Your task to perform on an android device: Open the web browser Image 0: 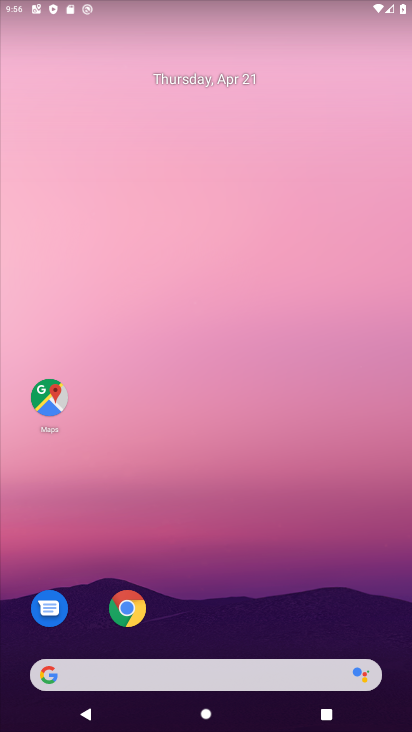
Step 0: drag from (224, 601) to (301, 36)
Your task to perform on an android device: Open the web browser Image 1: 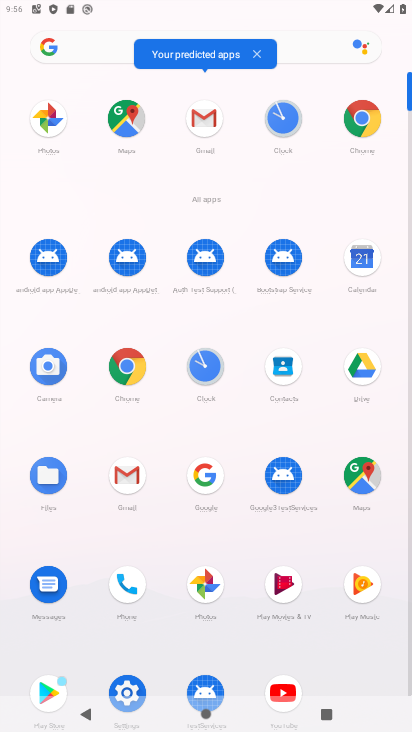
Step 1: click (368, 124)
Your task to perform on an android device: Open the web browser Image 2: 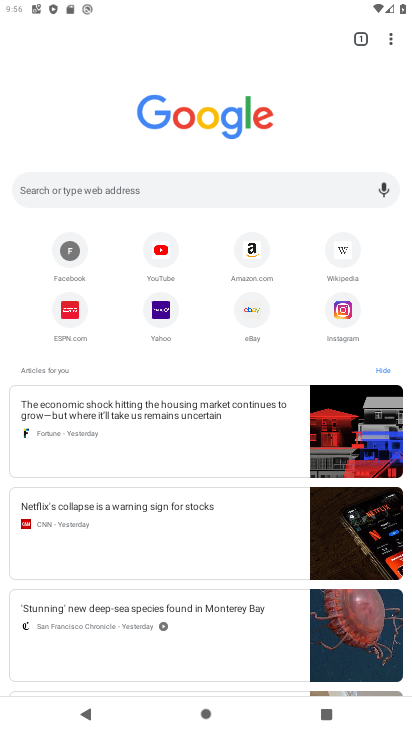
Step 2: task complete